Your task to perform on an android device: Show me productivity apps on the Play Store Image 0: 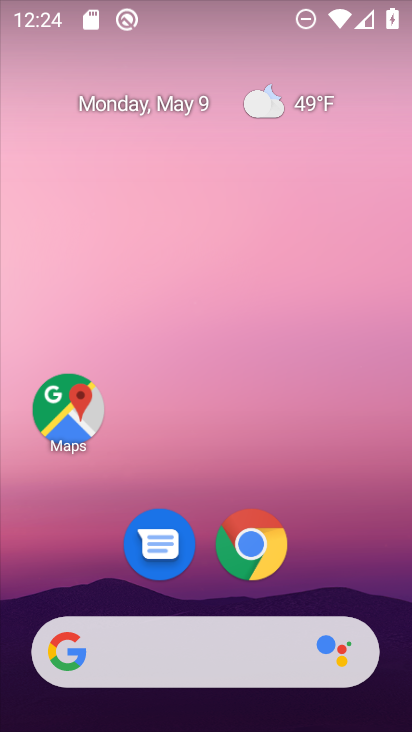
Step 0: drag from (363, 552) to (386, 54)
Your task to perform on an android device: Show me productivity apps on the Play Store Image 1: 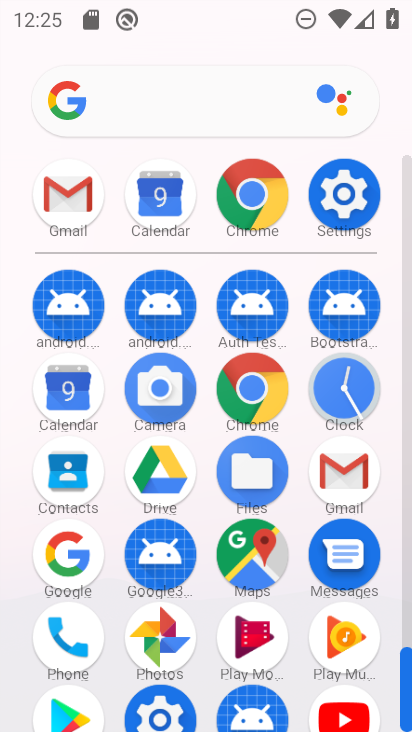
Step 1: drag from (398, 548) to (410, 220)
Your task to perform on an android device: Show me productivity apps on the Play Store Image 2: 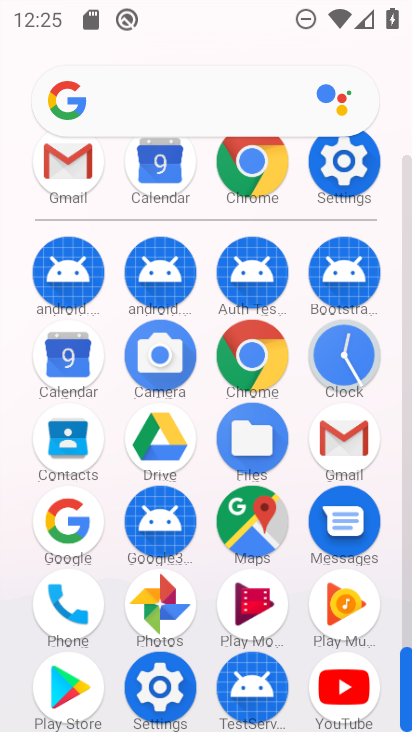
Step 2: click (250, 514)
Your task to perform on an android device: Show me productivity apps on the Play Store Image 3: 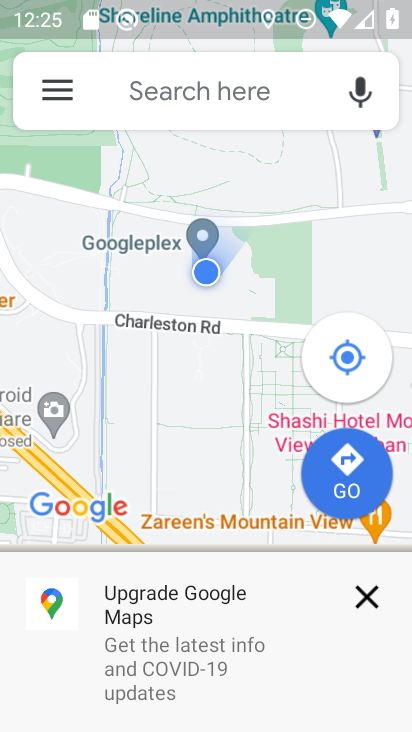
Step 3: press home button
Your task to perform on an android device: Show me productivity apps on the Play Store Image 4: 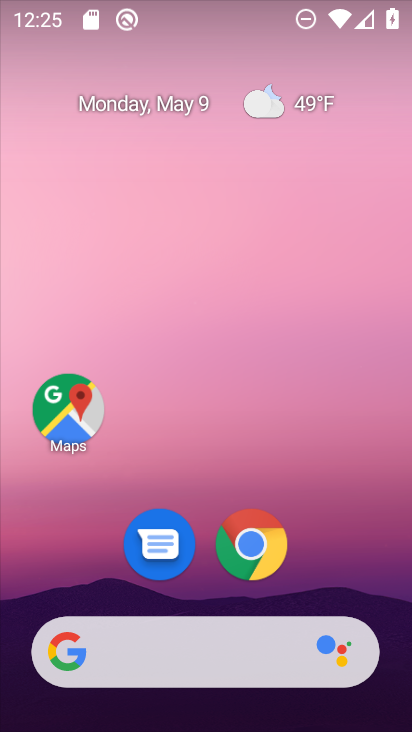
Step 4: drag from (367, 443) to (411, 59)
Your task to perform on an android device: Show me productivity apps on the Play Store Image 5: 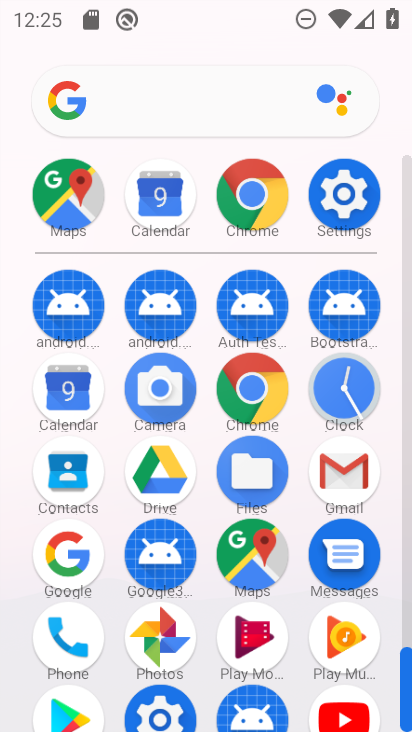
Step 5: drag from (395, 559) to (411, 526)
Your task to perform on an android device: Show me productivity apps on the Play Store Image 6: 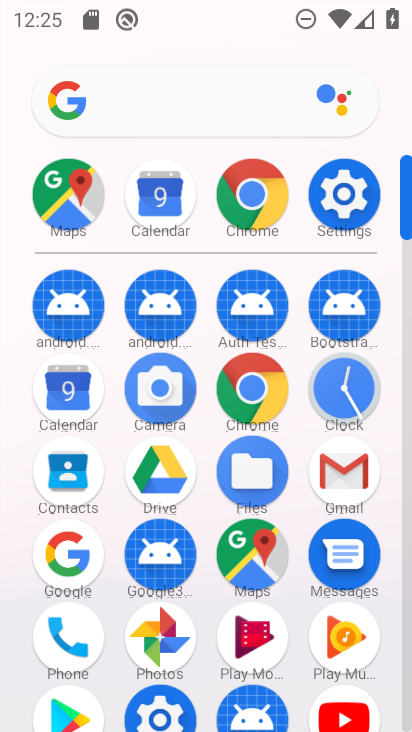
Step 6: drag from (393, 623) to (376, 365)
Your task to perform on an android device: Show me productivity apps on the Play Store Image 7: 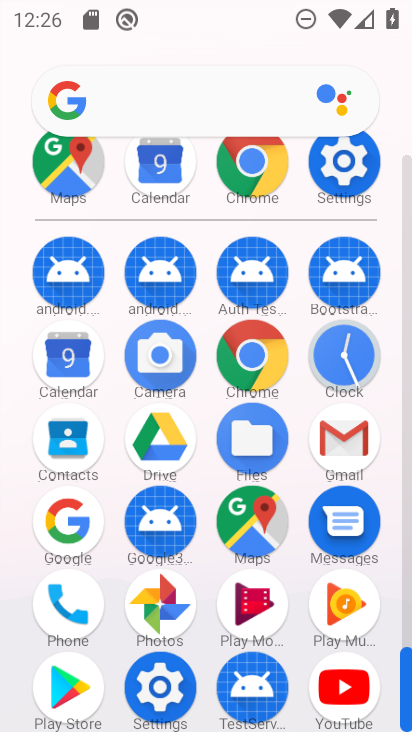
Step 7: drag from (401, 504) to (399, 142)
Your task to perform on an android device: Show me productivity apps on the Play Store Image 8: 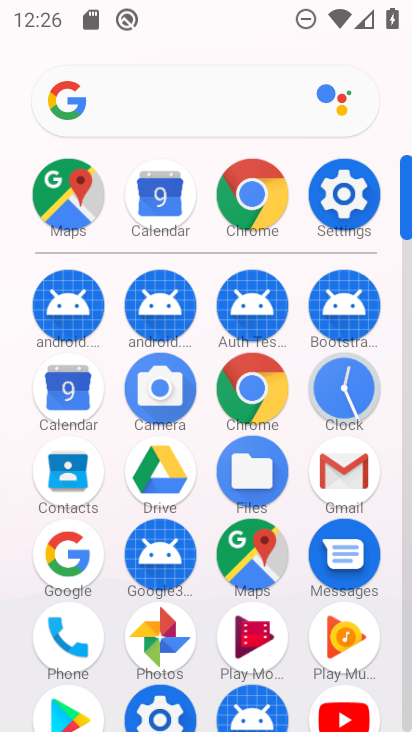
Step 8: click (48, 708)
Your task to perform on an android device: Show me productivity apps on the Play Store Image 9: 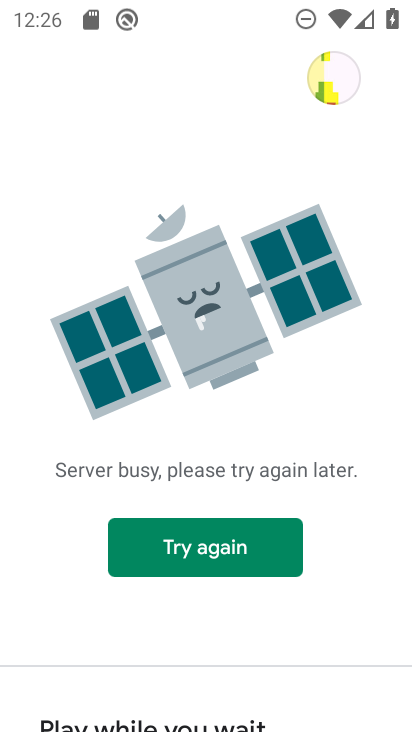
Step 9: click (258, 564)
Your task to perform on an android device: Show me productivity apps on the Play Store Image 10: 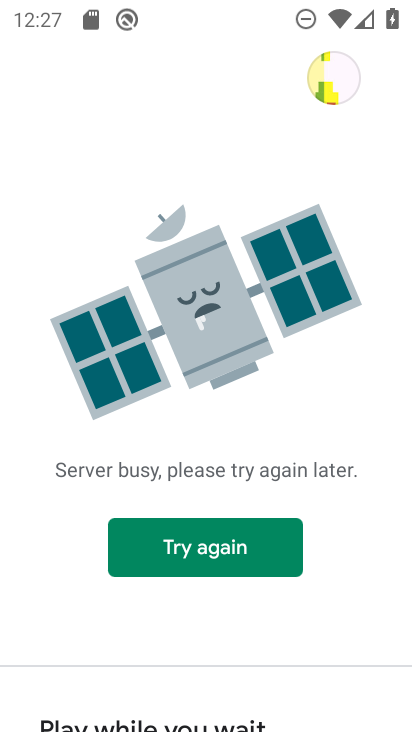
Step 10: task complete